Your task to perform on an android device: Go to settings Image 0: 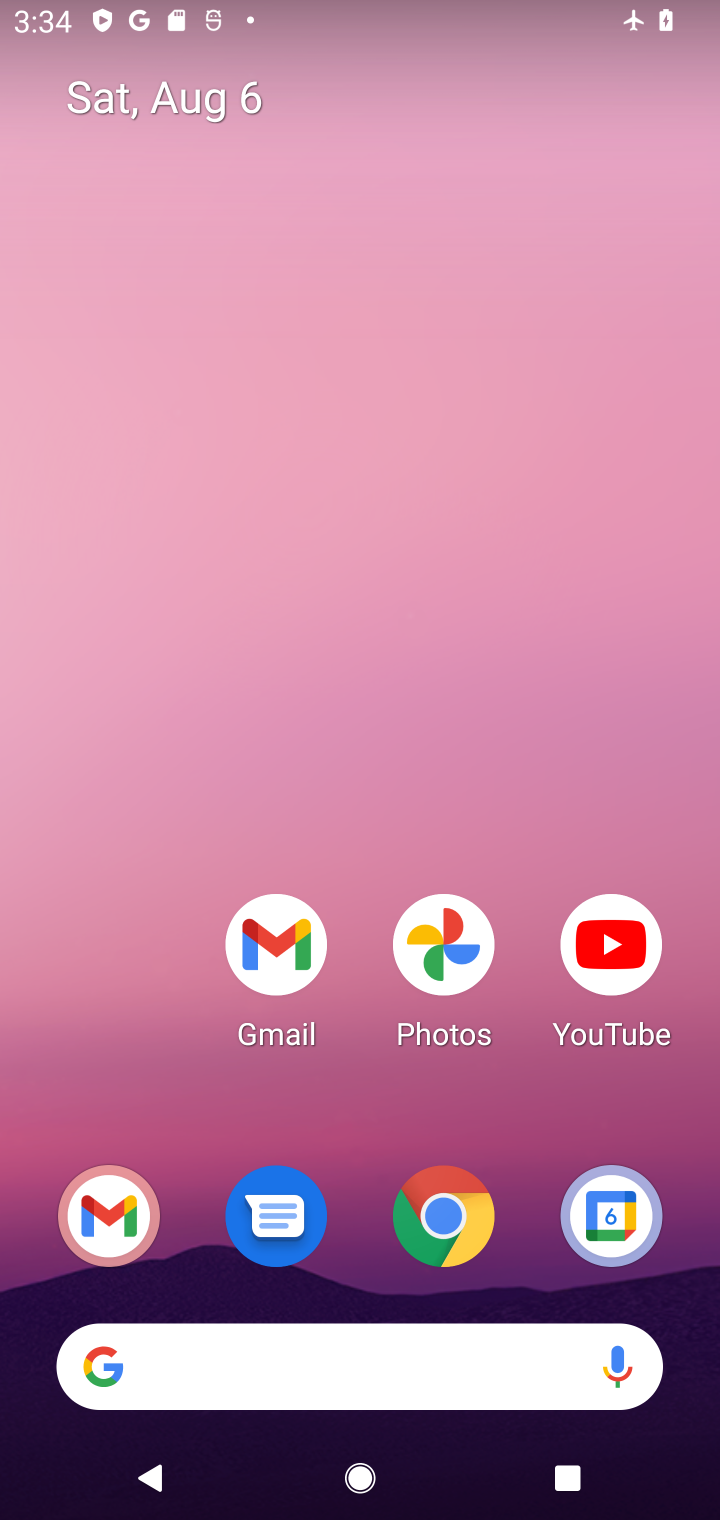
Step 0: drag from (528, 1138) to (532, 321)
Your task to perform on an android device: Go to settings Image 1: 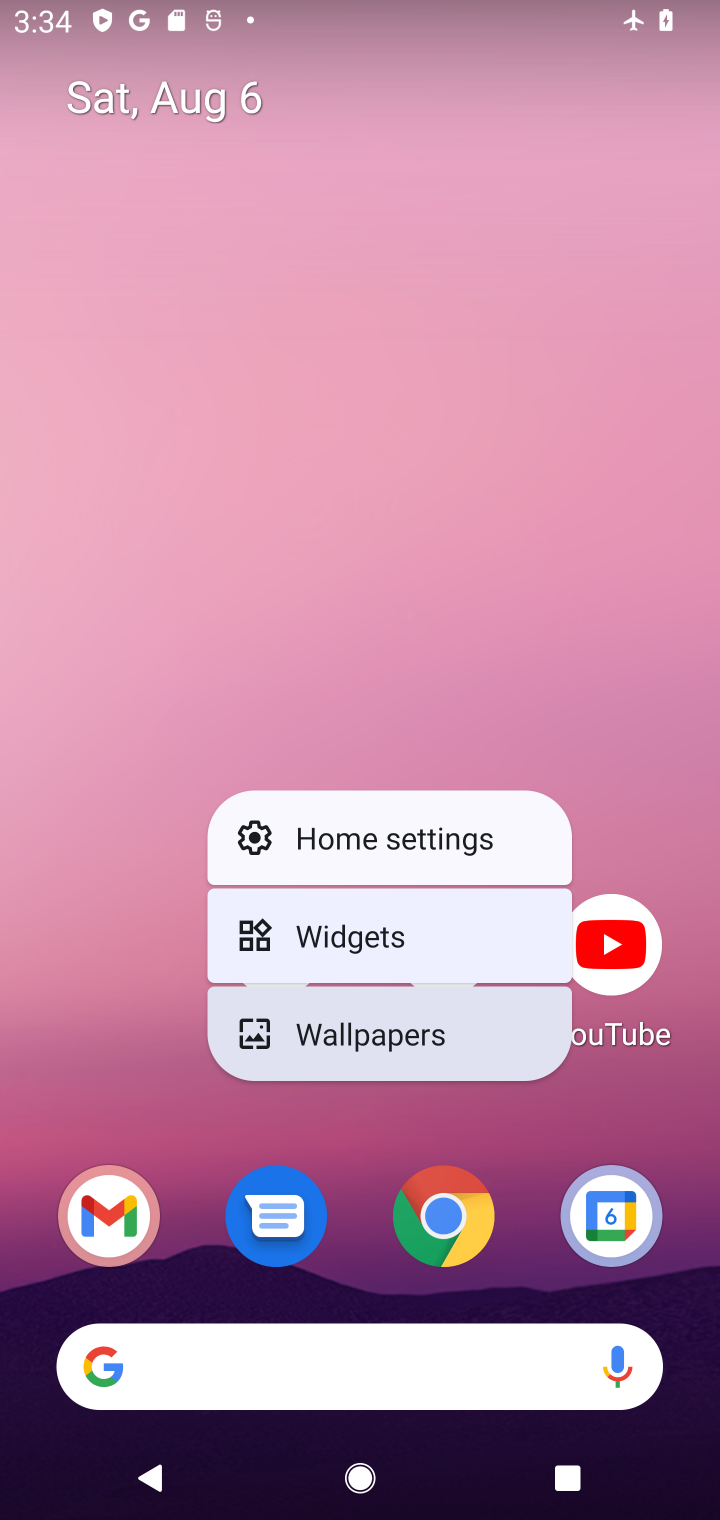
Step 1: click (540, 1274)
Your task to perform on an android device: Go to settings Image 2: 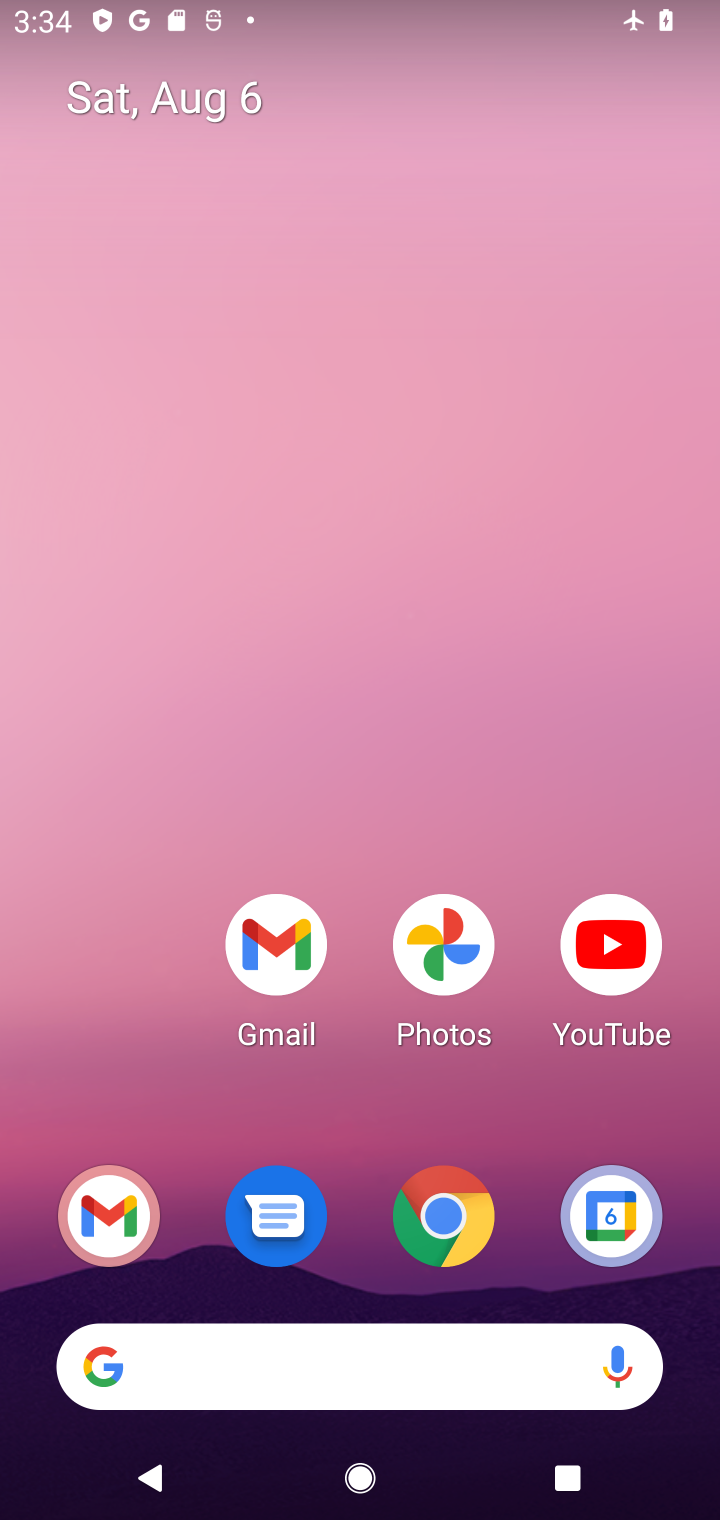
Step 2: drag from (533, 1166) to (500, 129)
Your task to perform on an android device: Go to settings Image 3: 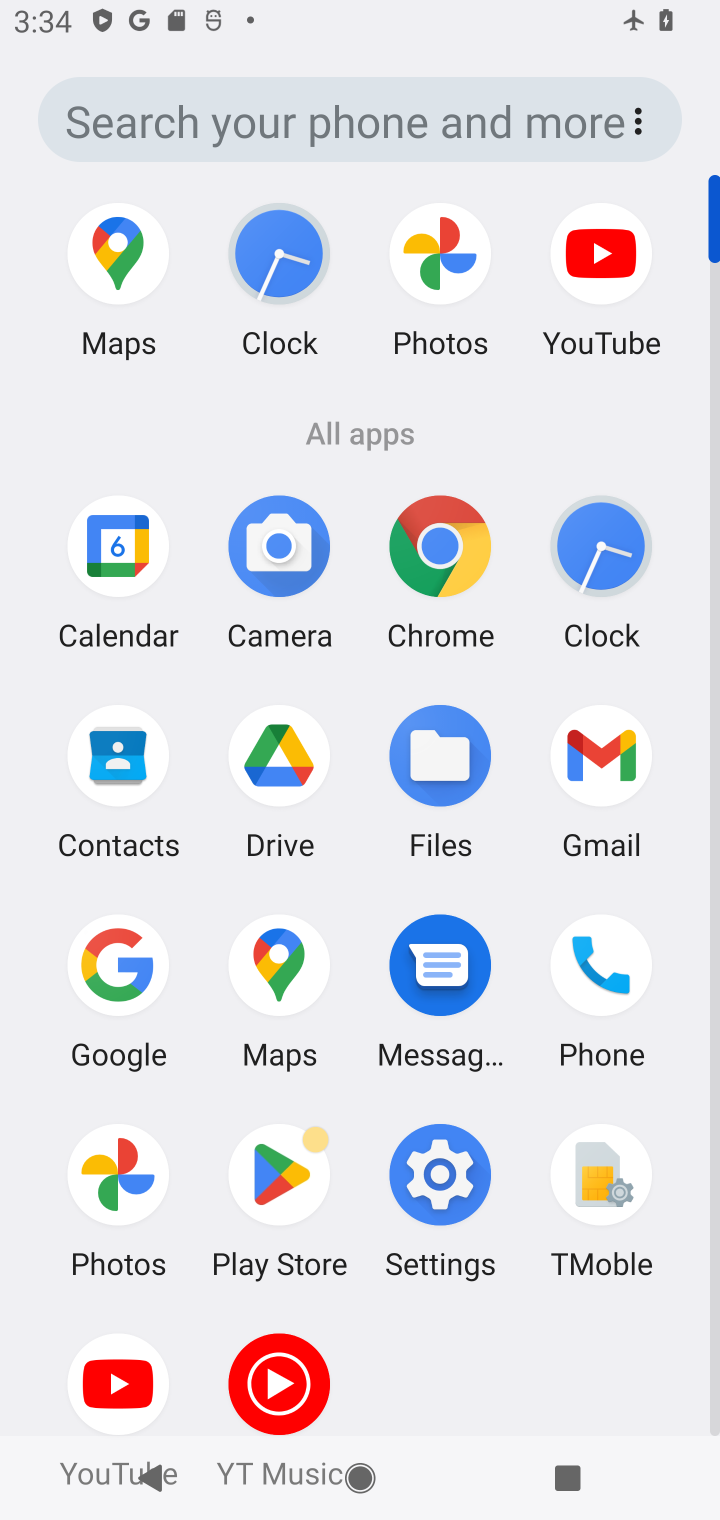
Step 3: click (444, 1227)
Your task to perform on an android device: Go to settings Image 4: 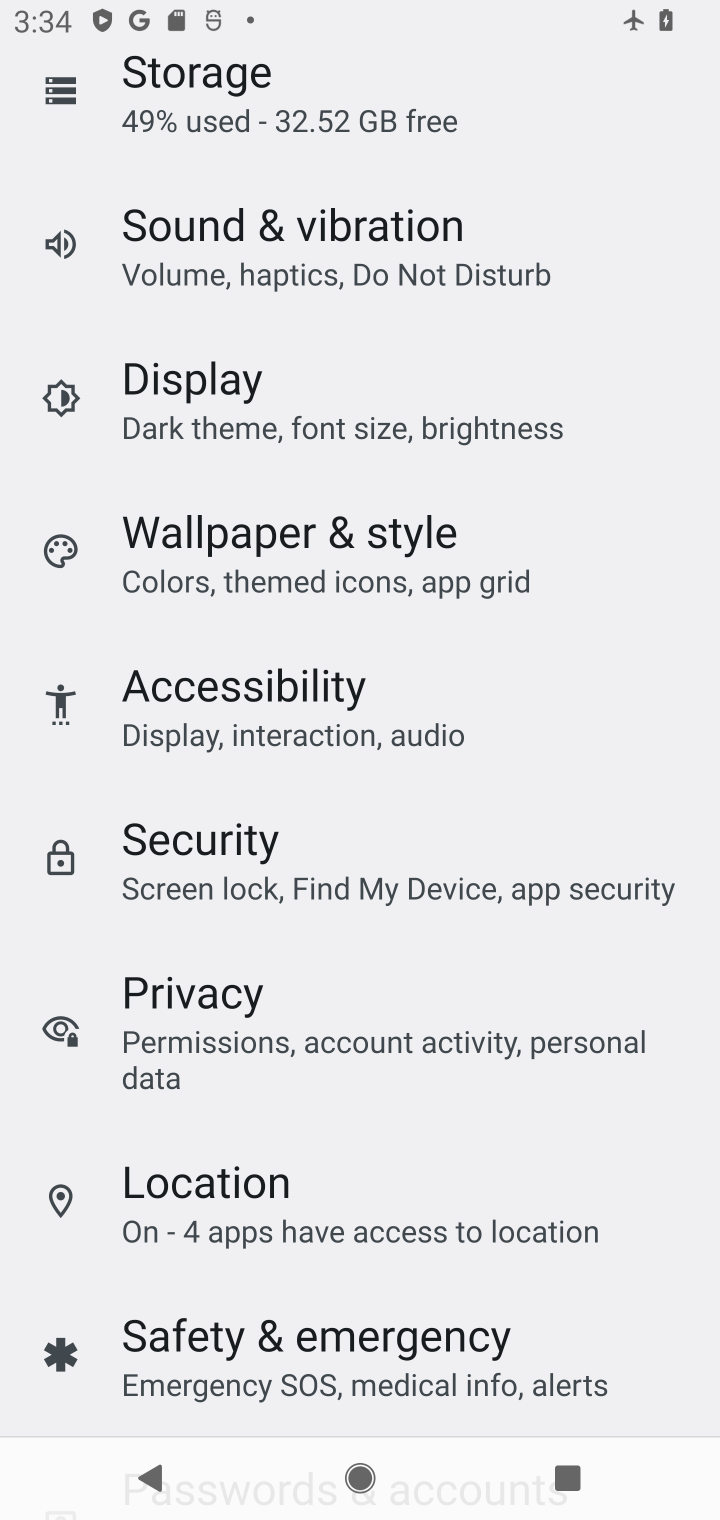
Step 4: task complete